Your task to perform on an android device: empty trash in the gmail app Image 0: 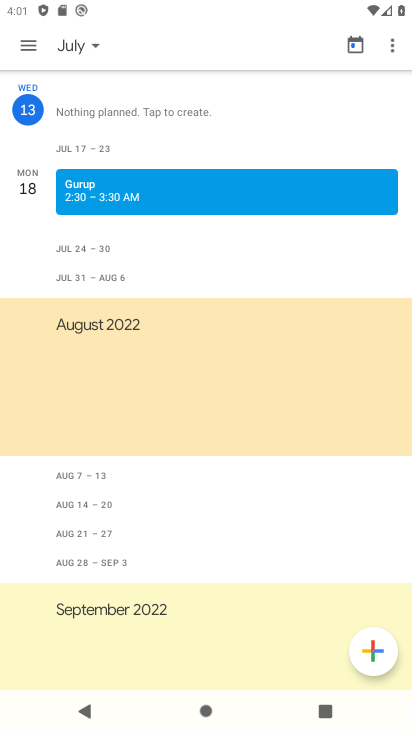
Step 0: press home button
Your task to perform on an android device: empty trash in the gmail app Image 1: 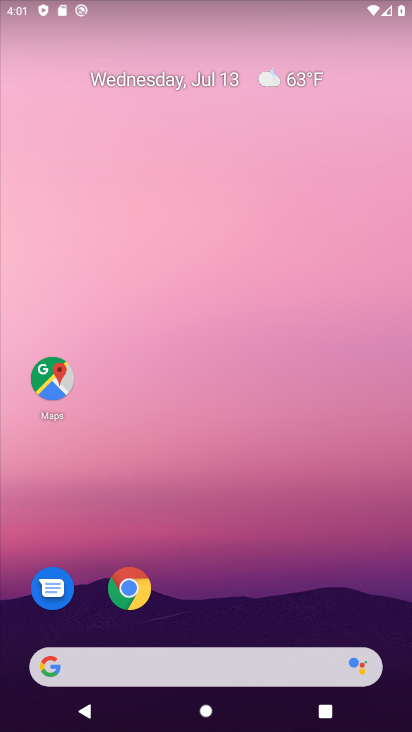
Step 1: drag from (185, 659) to (262, 151)
Your task to perform on an android device: empty trash in the gmail app Image 2: 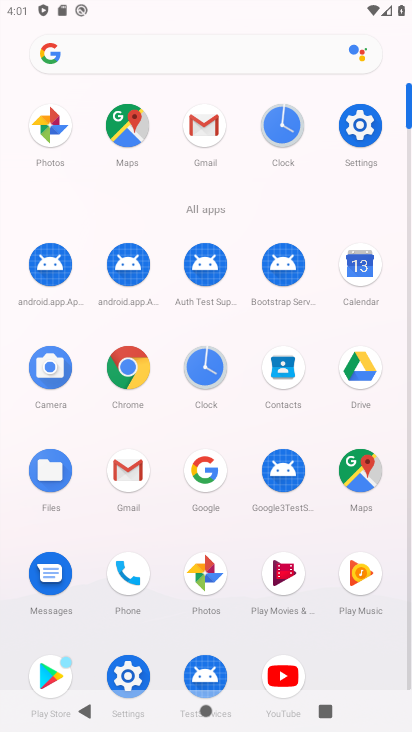
Step 2: click (204, 126)
Your task to perform on an android device: empty trash in the gmail app Image 3: 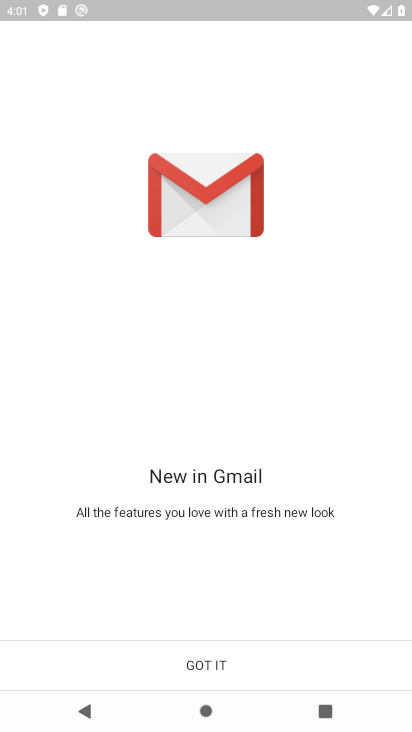
Step 3: click (206, 664)
Your task to perform on an android device: empty trash in the gmail app Image 4: 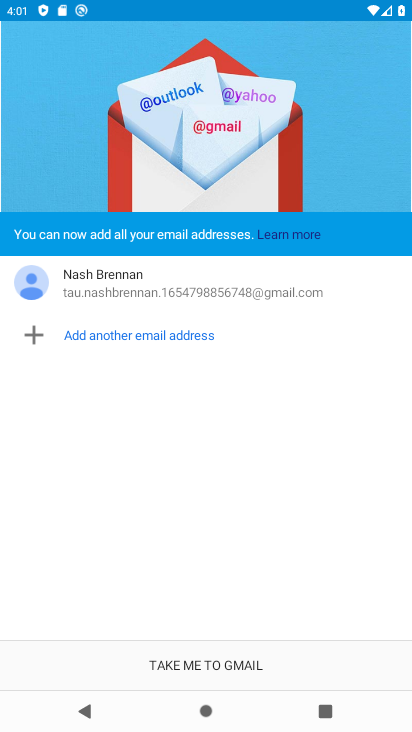
Step 4: click (206, 664)
Your task to perform on an android device: empty trash in the gmail app Image 5: 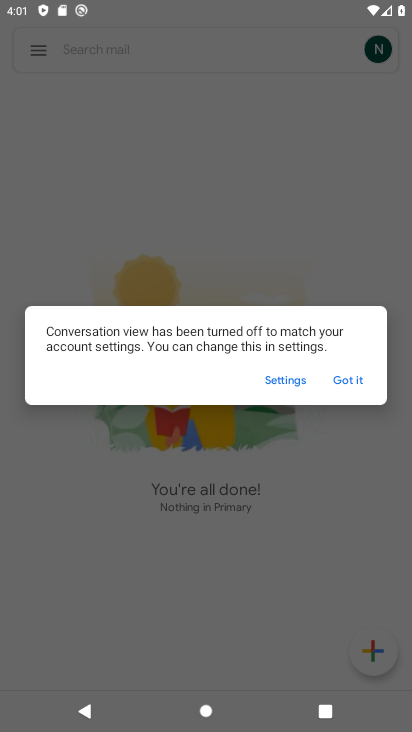
Step 5: click (362, 380)
Your task to perform on an android device: empty trash in the gmail app Image 6: 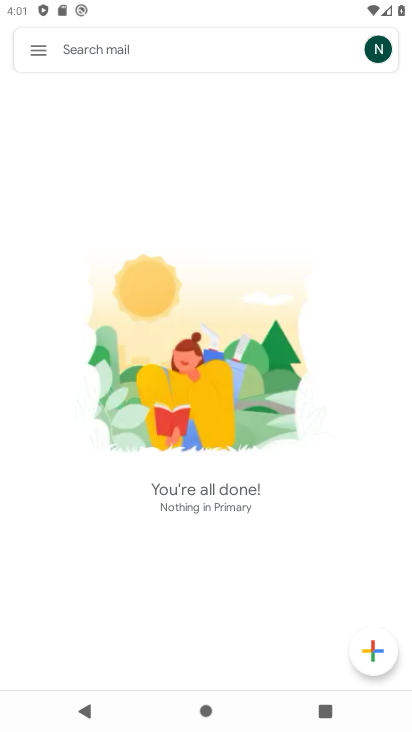
Step 6: click (41, 50)
Your task to perform on an android device: empty trash in the gmail app Image 7: 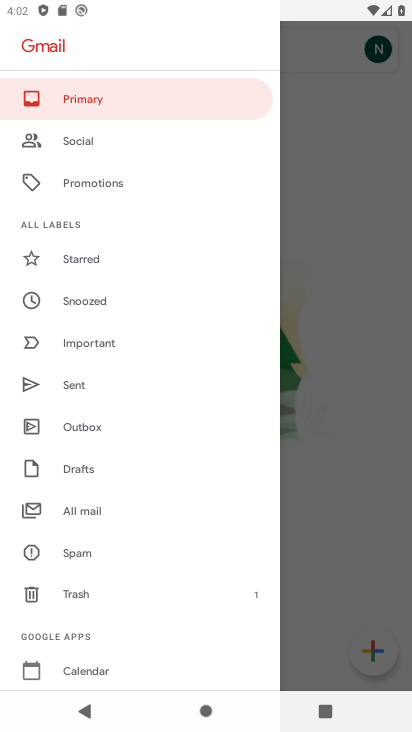
Step 7: click (87, 591)
Your task to perform on an android device: empty trash in the gmail app Image 8: 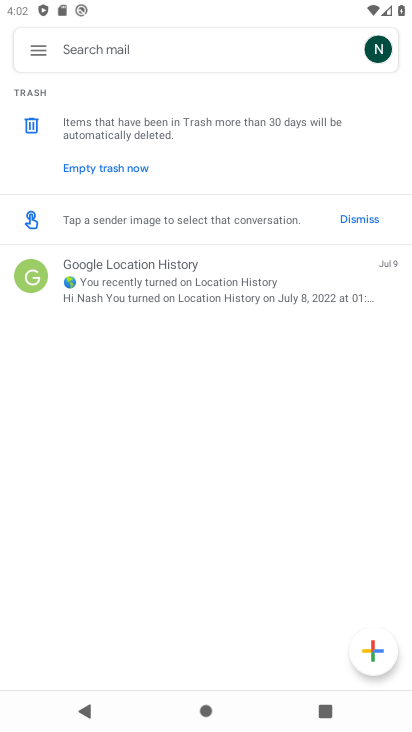
Step 8: click (143, 165)
Your task to perform on an android device: empty trash in the gmail app Image 9: 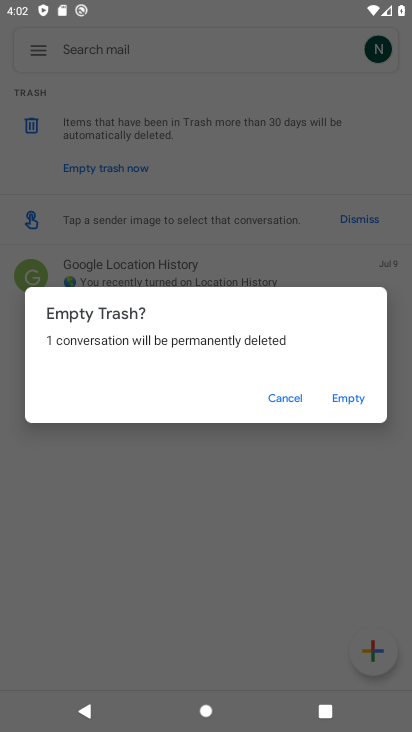
Step 9: click (356, 392)
Your task to perform on an android device: empty trash in the gmail app Image 10: 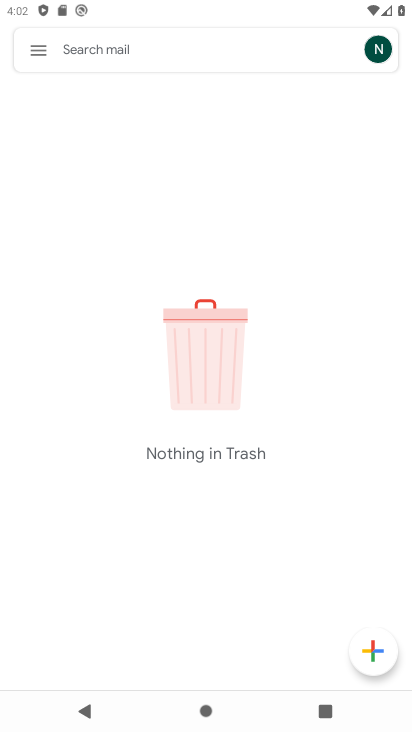
Step 10: task complete